Your task to perform on an android device: turn off improve location accuracy Image 0: 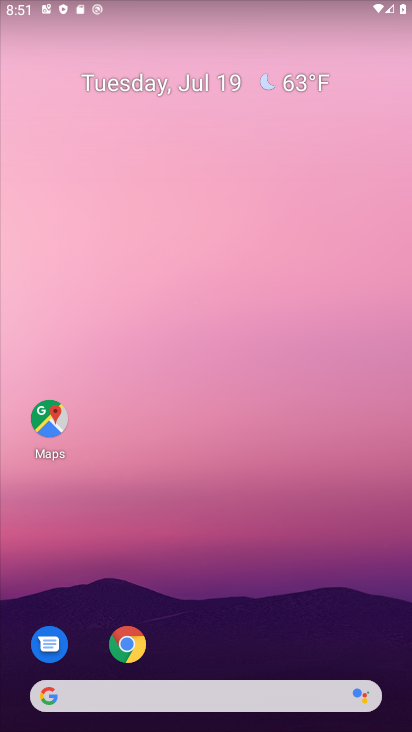
Step 0: drag from (204, 645) to (110, 156)
Your task to perform on an android device: turn off improve location accuracy Image 1: 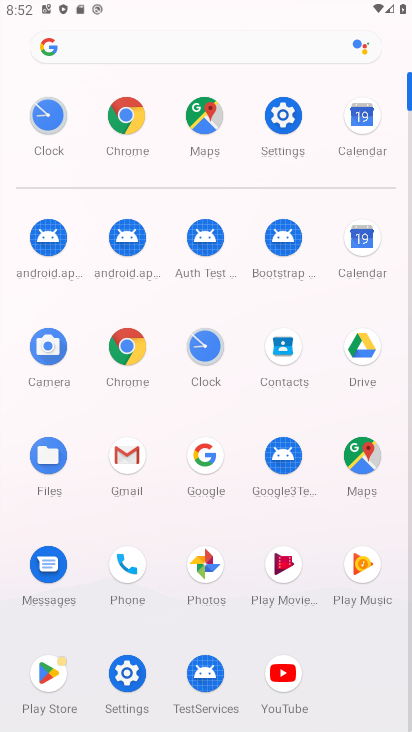
Step 1: click (272, 109)
Your task to perform on an android device: turn off improve location accuracy Image 2: 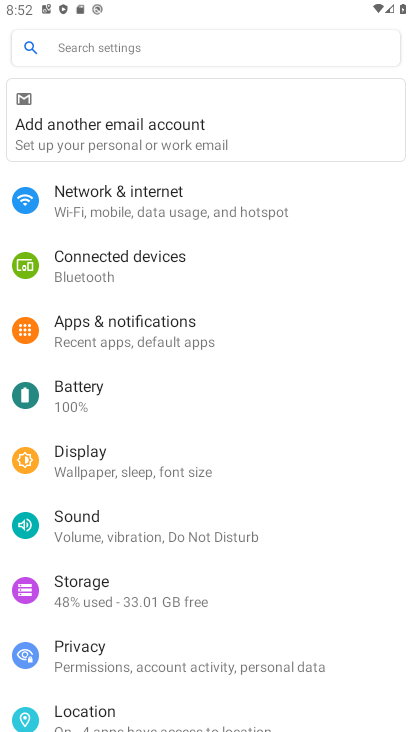
Step 2: drag from (121, 628) to (107, 176)
Your task to perform on an android device: turn off improve location accuracy Image 3: 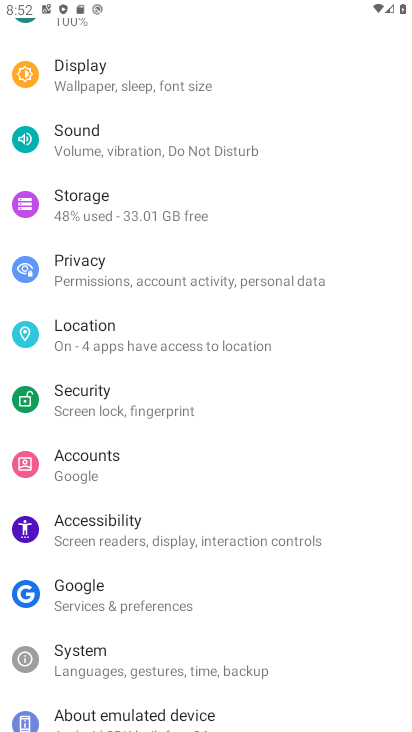
Step 3: click (98, 347)
Your task to perform on an android device: turn off improve location accuracy Image 4: 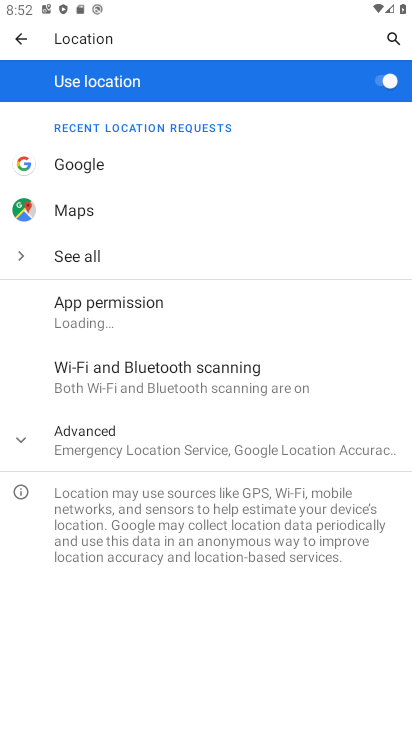
Step 4: click (97, 446)
Your task to perform on an android device: turn off improve location accuracy Image 5: 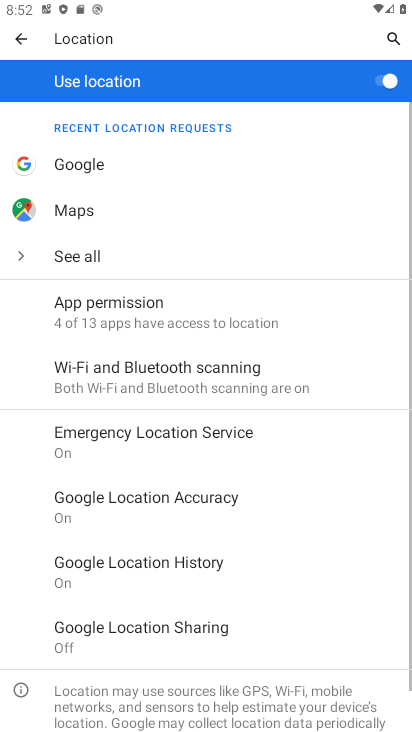
Step 5: click (122, 500)
Your task to perform on an android device: turn off improve location accuracy Image 6: 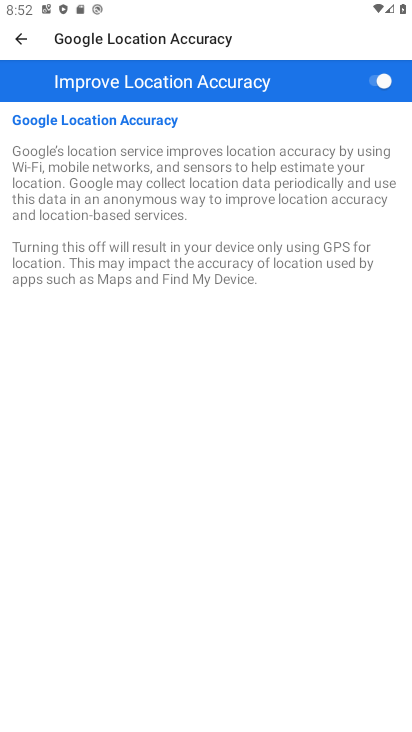
Step 6: click (386, 86)
Your task to perform on an android device: turn off improve location accuracy Image 7: 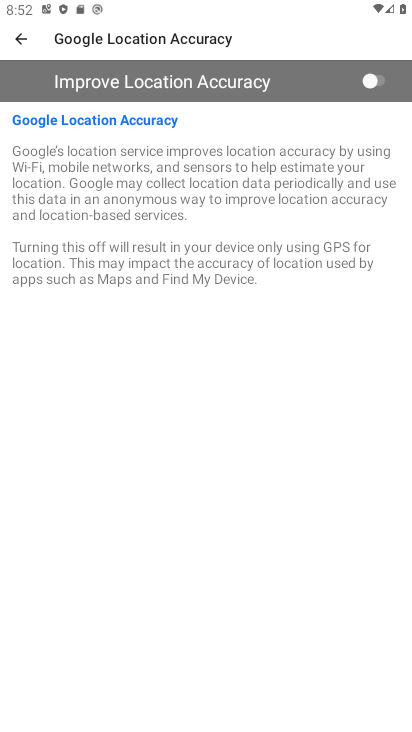
Step 7: task complete